Your task to perform on an android device: change alarm snooze length Image 0: 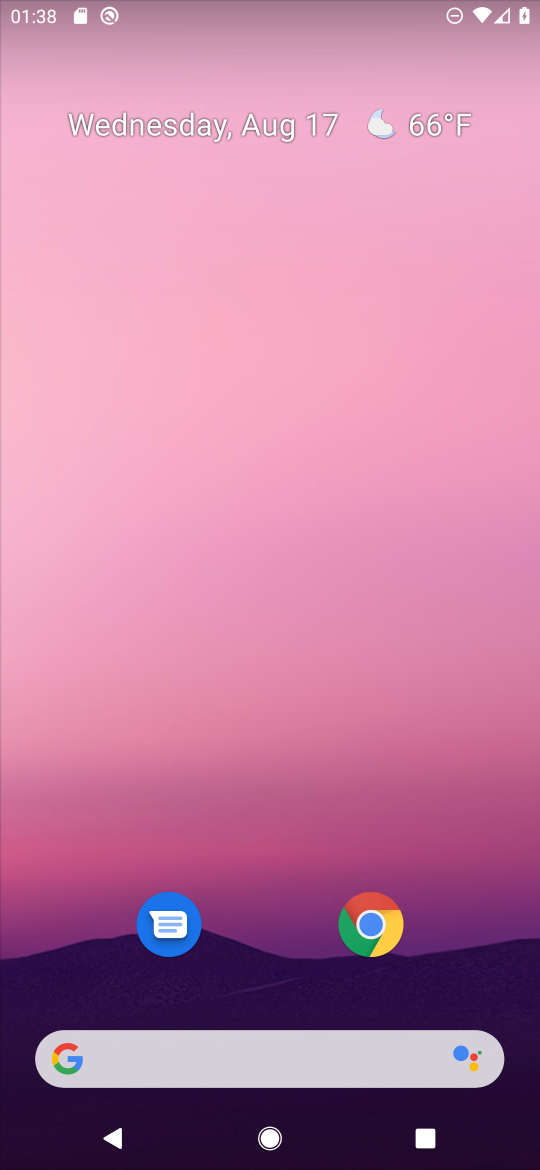
Step 0: drag from (240, 987) to (259, 60)
Your task to perform on an android device: change alarm snooze length Image 1: 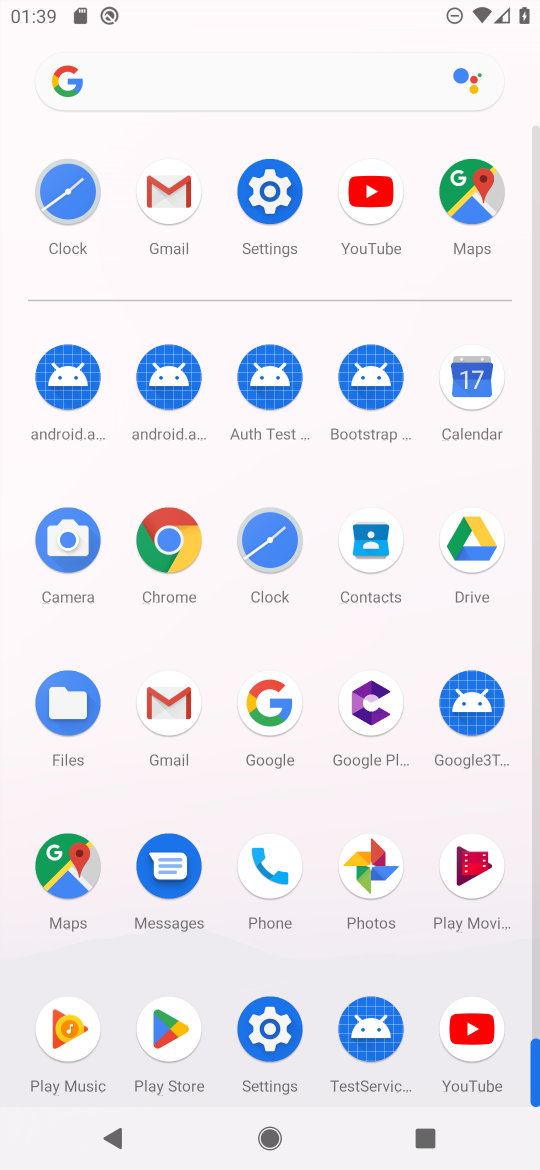
Step 1: click (70, 187)
Your task to perform on an android device: change alarm snooze length Image 2: 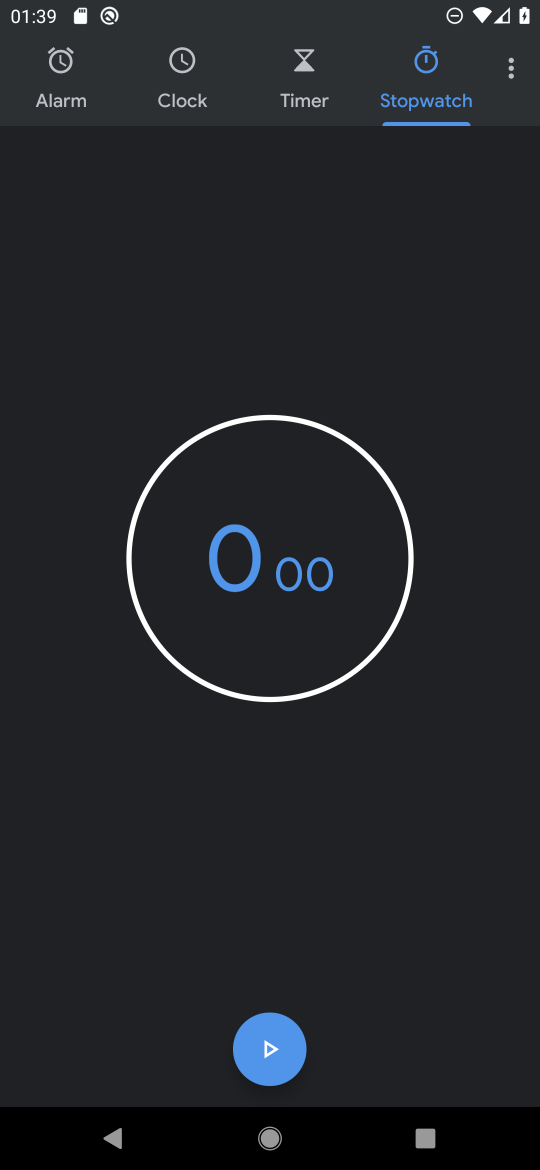
Step 2: click (524, 65)
Your task to perform on an android device: change alarm snooze length Image 3: 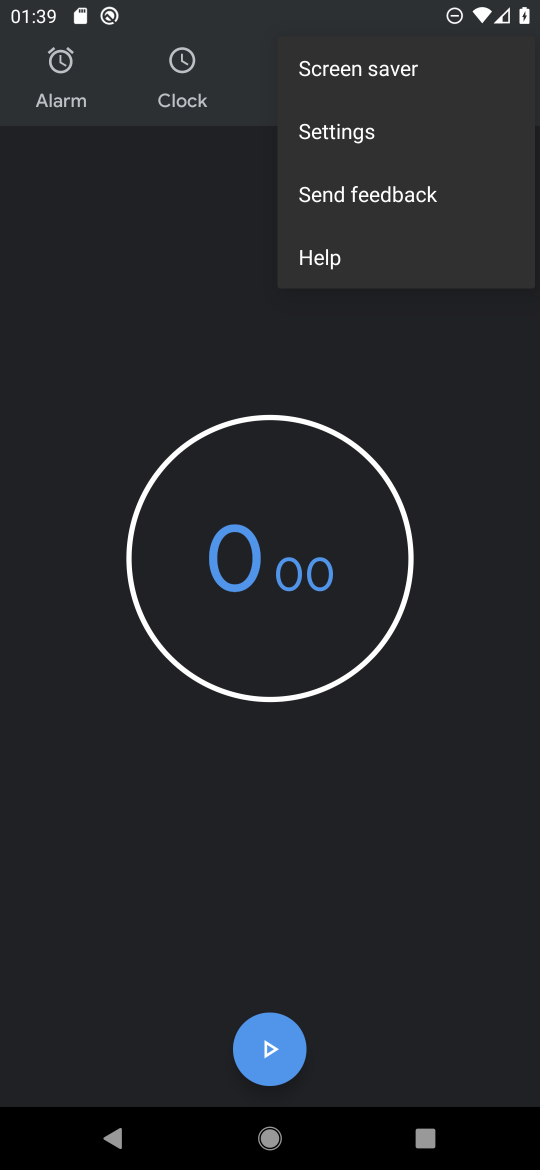
Step 3: click (382, 142)
Your task to perform on an android device: change alarm snooze length Image 4: 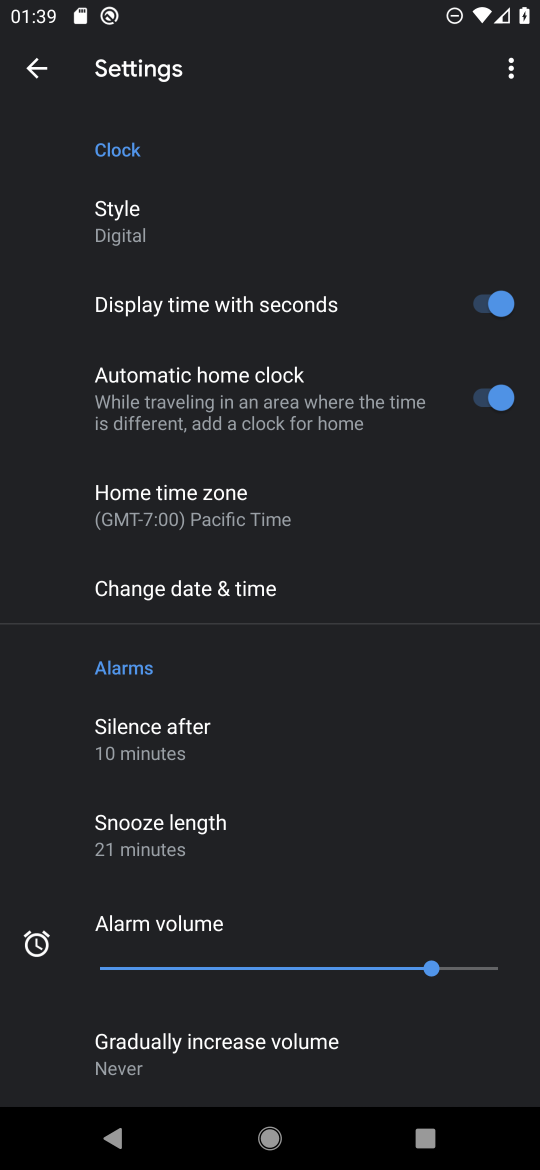
Step 4: drag from (228, 170) to (227, 913)
Your task to perform on an android device: change alarm snooze length Image 5: 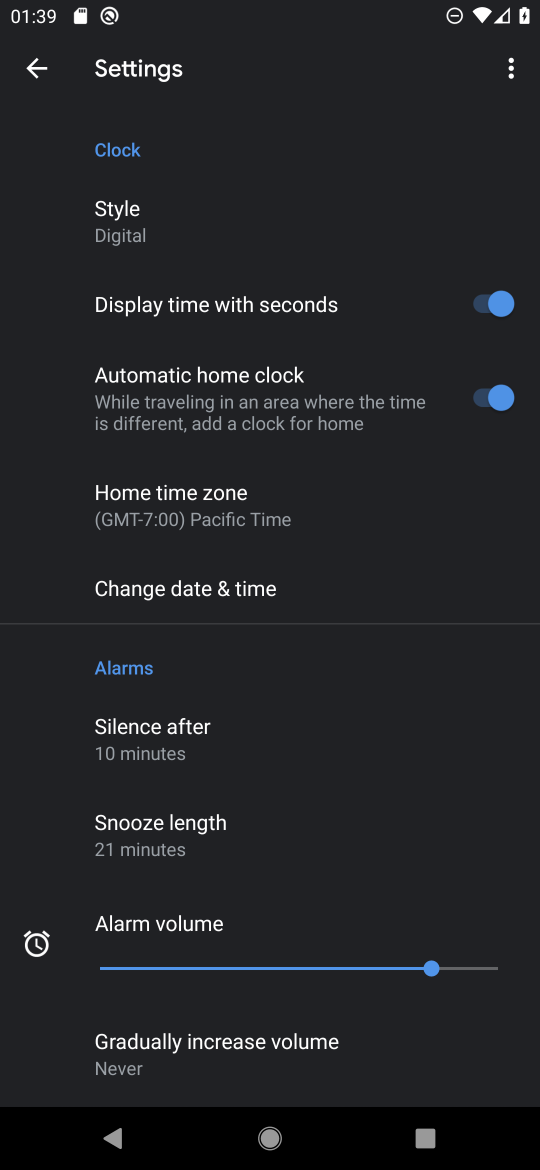
Step 5: drag from (75, 867) to (191, 205)
Your task to perform on an android device: change alarm snooze length Image 6: 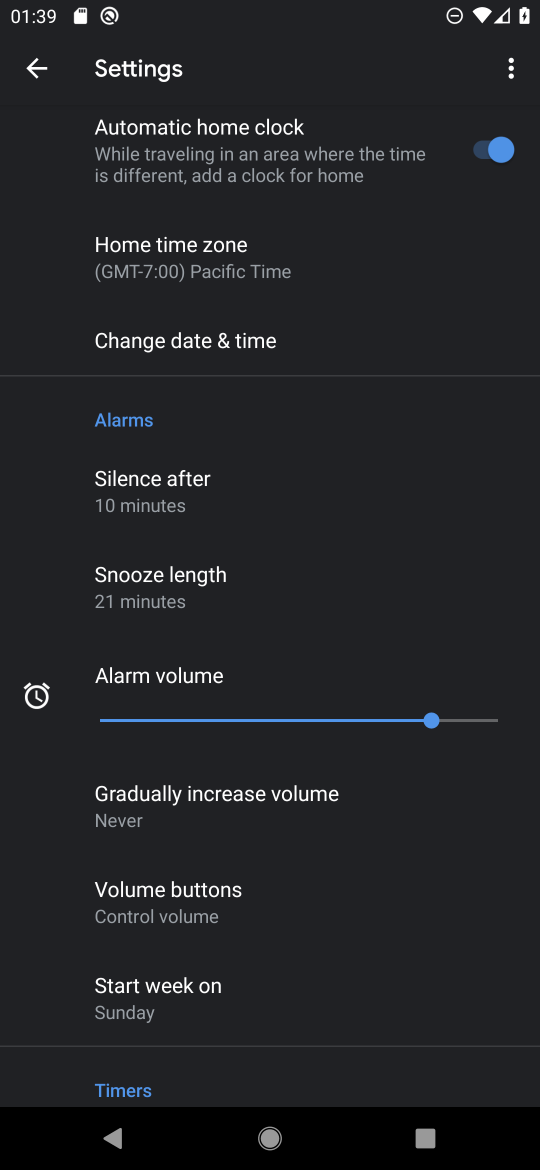
Step 6: click (143, 766)
Your task to perform on an android device: change alarm snooze length Image 7: 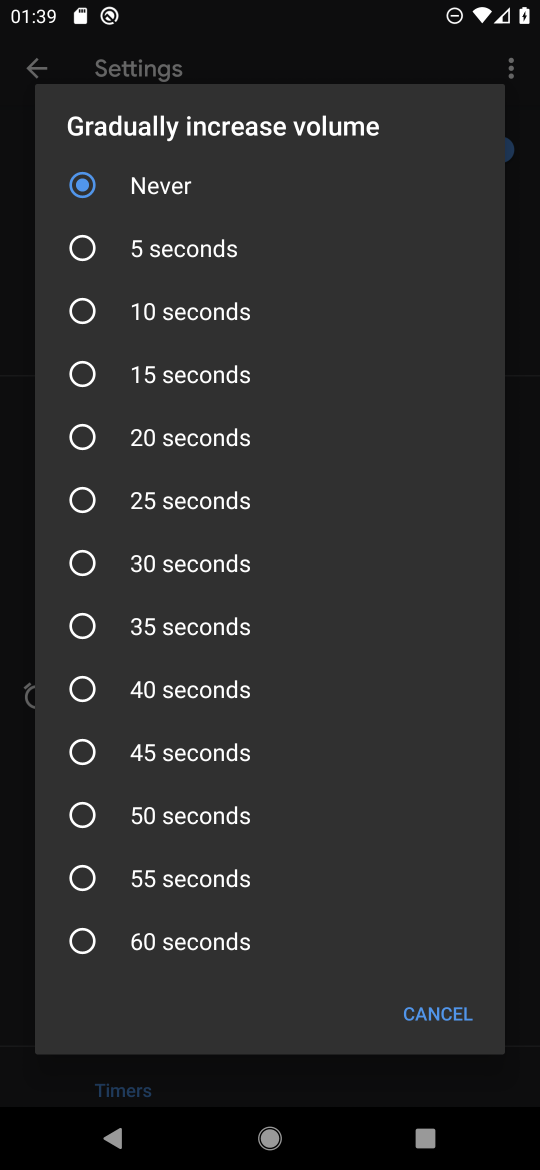
Step 7: click (327, 786)
Your task to perform on an android device: change alarm snooze length Image 8: 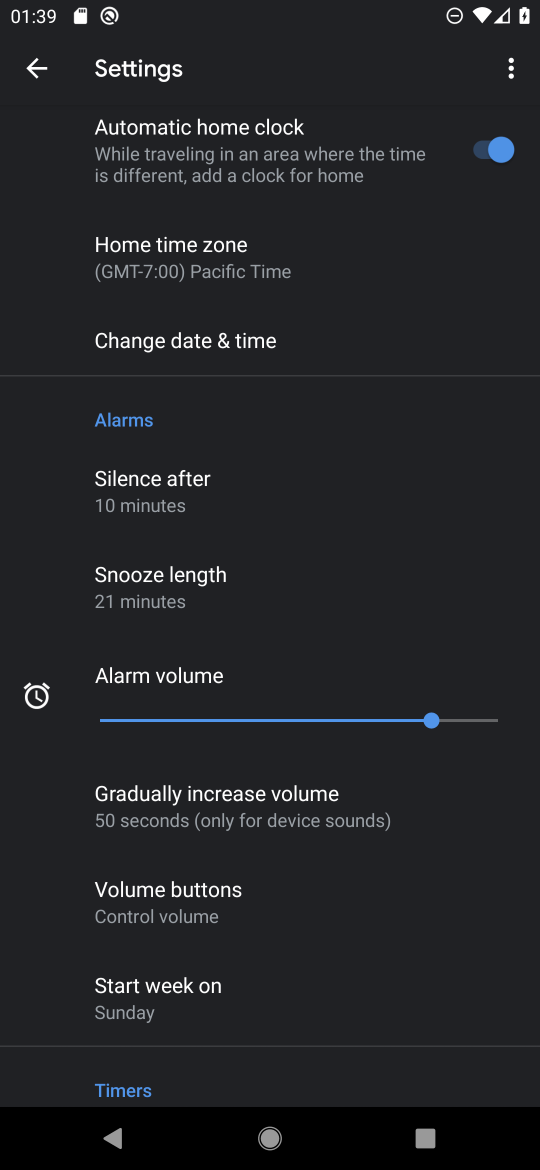
Step 8: task complete